Your task to perform on an android device: turn off notifications settings in the gmail app Image 0: 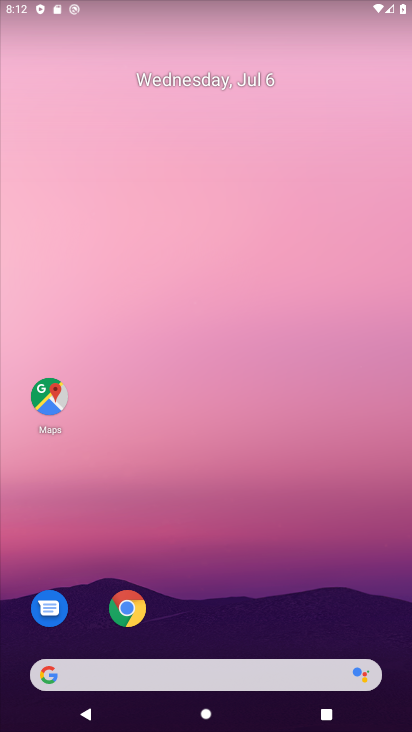
Step 0: drag from (339, 688) to (213, 0)
Your task to perform on an android device: turn off notifications settings in the gmail app Image 1: 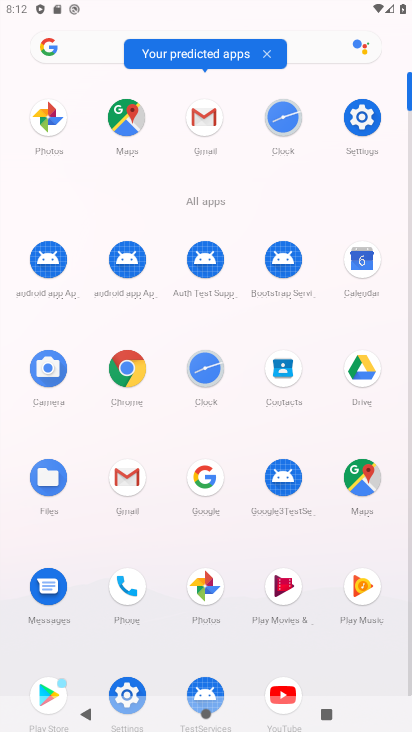
Step 1: drag from (262, 573) to (256, 200)
Your task to perform on an android device: turn off notifications settings in the gmail app Image 2: 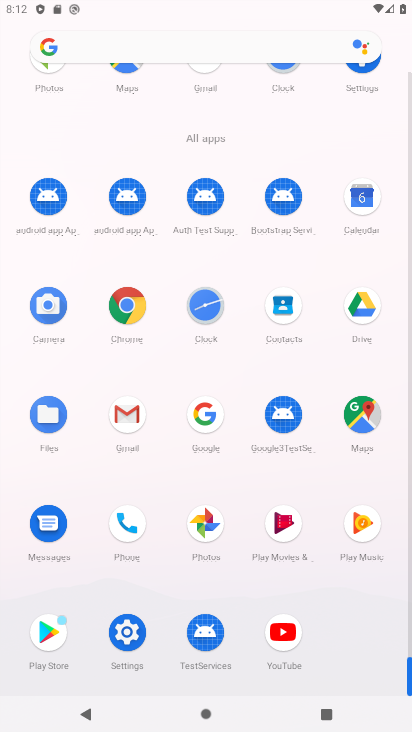
Step 2: click (128, 624)
Your task to perform on an android device: turn off notifications settings in the gmail app Image 3: 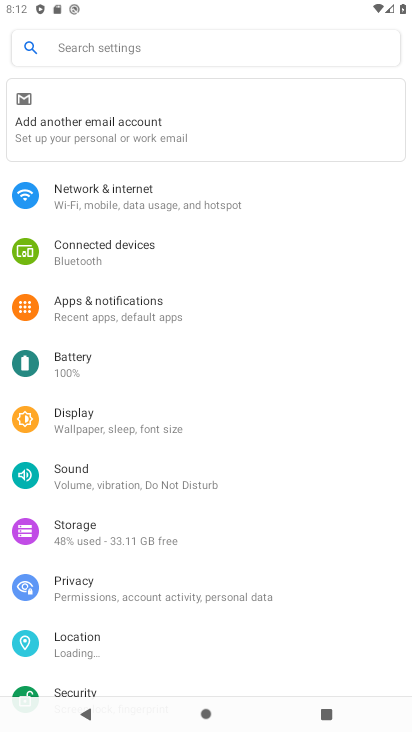
Step 3: click (198, 319)
Your task to perform on an android device: turn off notifications settings in the gmail app Image 4: 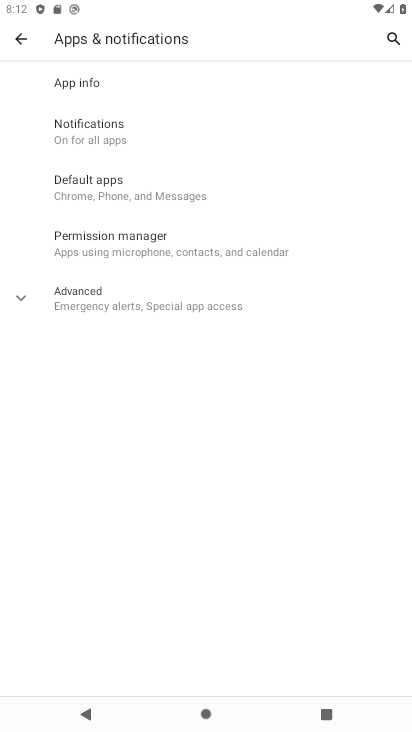
Step 4: click (150, 143)
Your task to perform on an android device: turn off notifications settings in the gmail app Image 5: 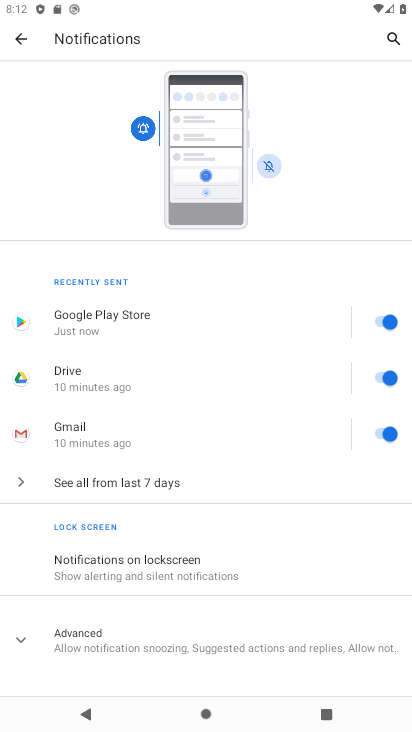
Step 5: click (380, 421)
Your task to perform on an android device: turn off notifications settings in the gmail app Image 6: 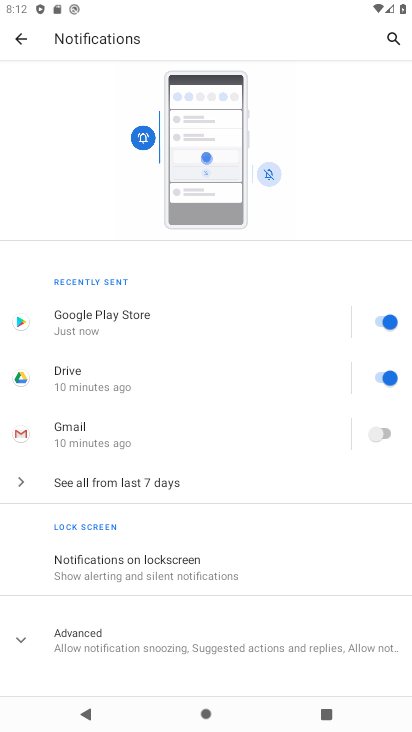
Step 6: task complete